Your task to perform on an android device: turn off priority inbox in the gmail app Image 0: 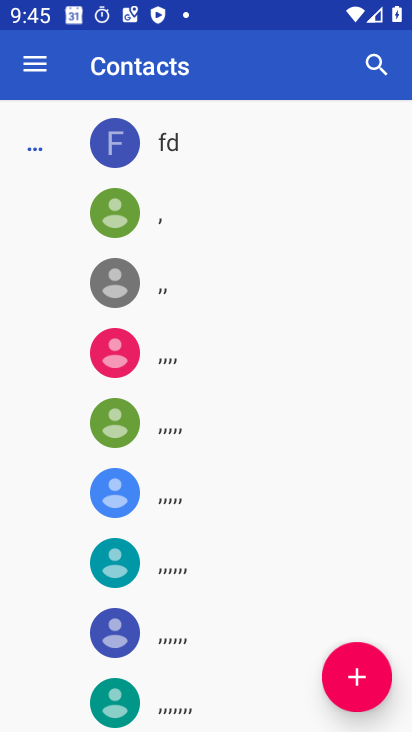
Step 0: press home button
Your task to perform on an android device: turn off priority inbox in the gmail app Image 1: 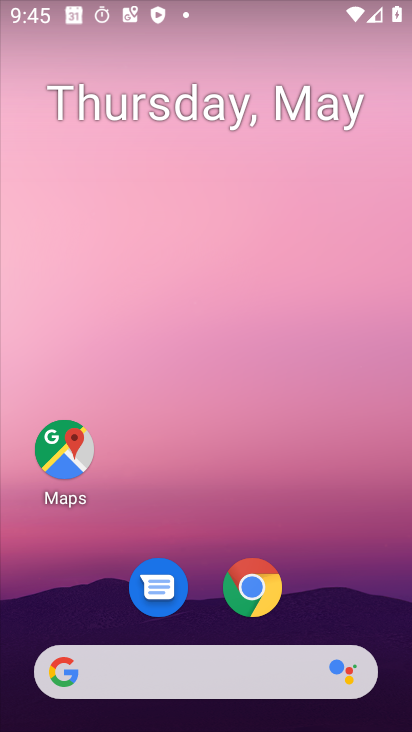
Step 1: drag from (349, 620) to (330, 9)
Your task to perform on an android device: turn off priority inbox in the gmail app Image 2: 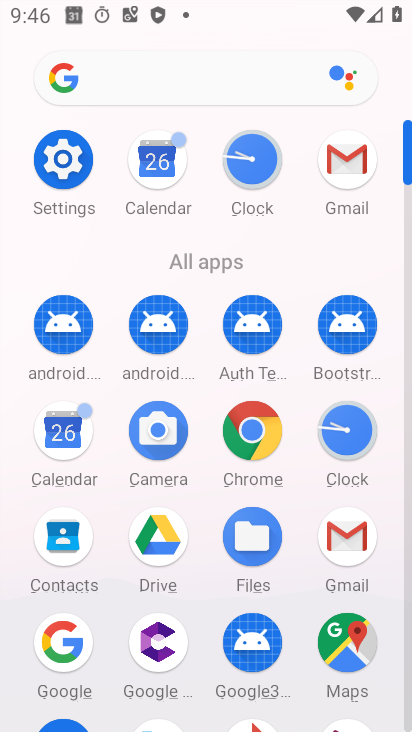
Step 2: click (347, 169)
Your task to perform on an android device: turn off priority inbox in the gmail app Image 3: 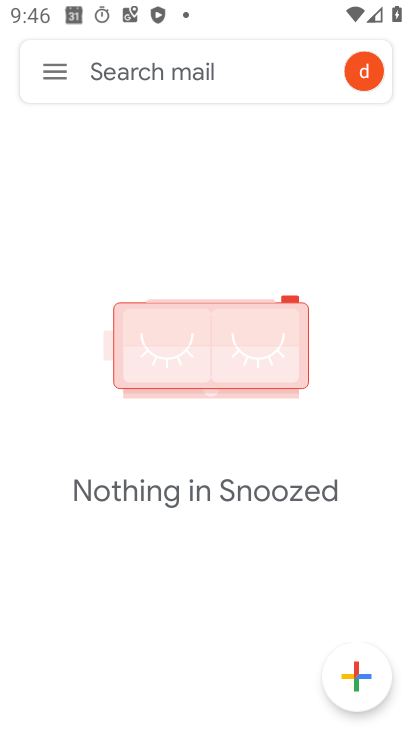
Step 3: click (48, 76)
Your task to perform on an android device: turn off priority inbox in the gmail app Image 4: 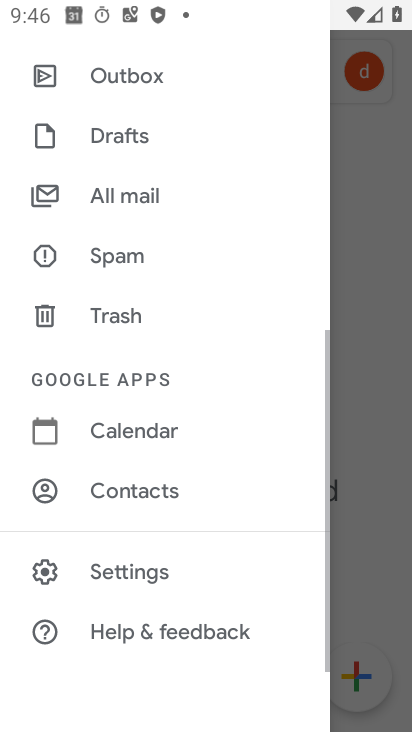
Step 4: click (139, 570)
Your task to perform on an android device: turn off priority inbox in the gmail app Image 5: 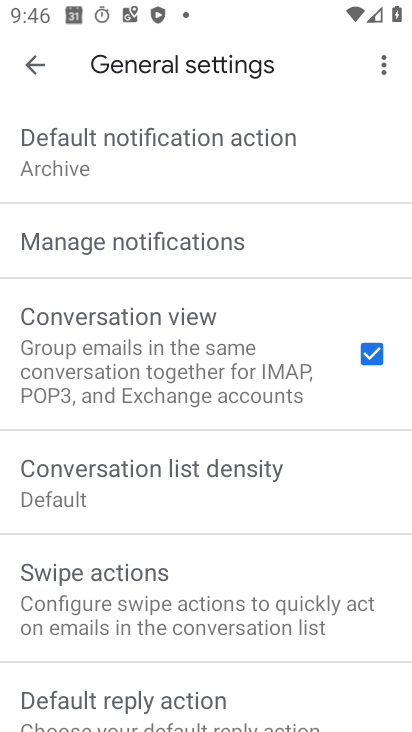
Step 5: click (33, 62)
Your task to perform on an android device: turn off priority inbox in the gmail app Image 6: 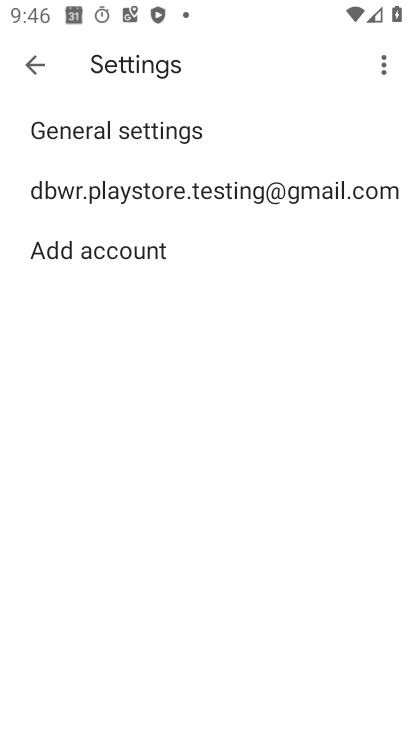
Step 6: click (113, 200)
Your task to perform on an android device: turn off priority inbox in the gmail app Image 7: 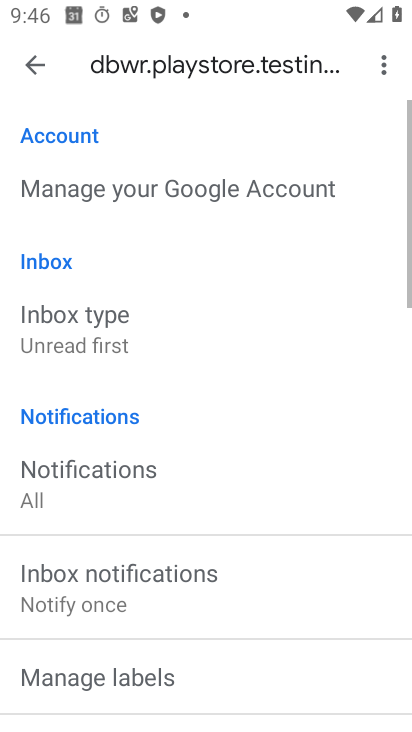
Step 7: click (54, 328)
Your task to perform on an android device: turn off priority inbox in the gmail app Image 8: 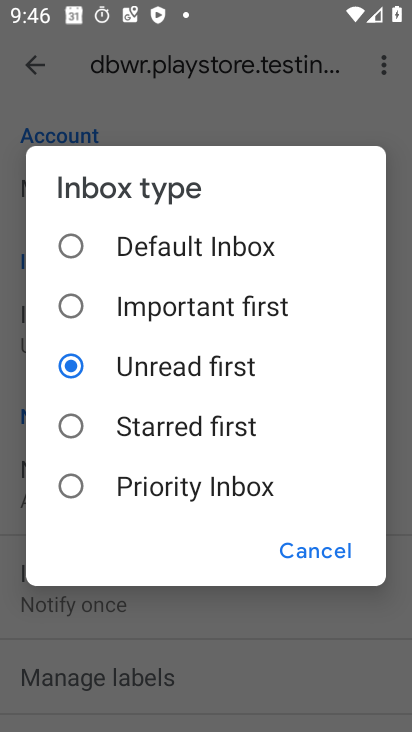
Step 8: task complete